Your task to perform on an android device: Go to battery settings Image 0: 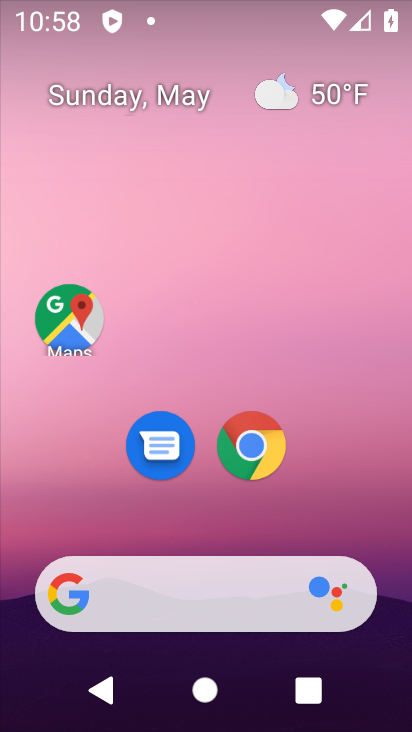
Step 0: drag from (223, 520) to (190, 74)
Your task to perform on an android device: Go to battery settings Image 1: 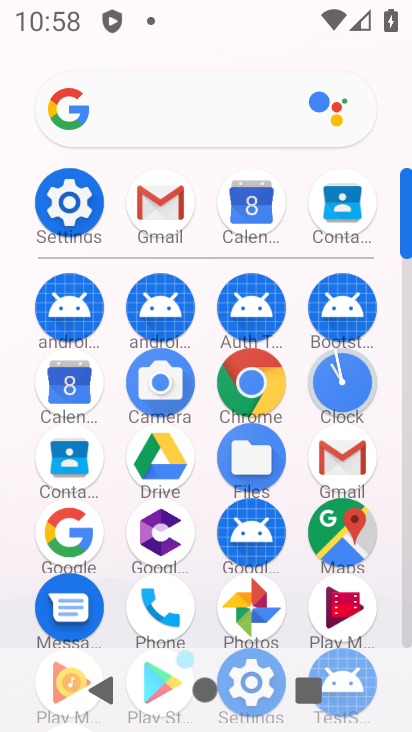
Step 1: click (67, 192)
Your task to perform on an android device: Go to battery settings Image 2: 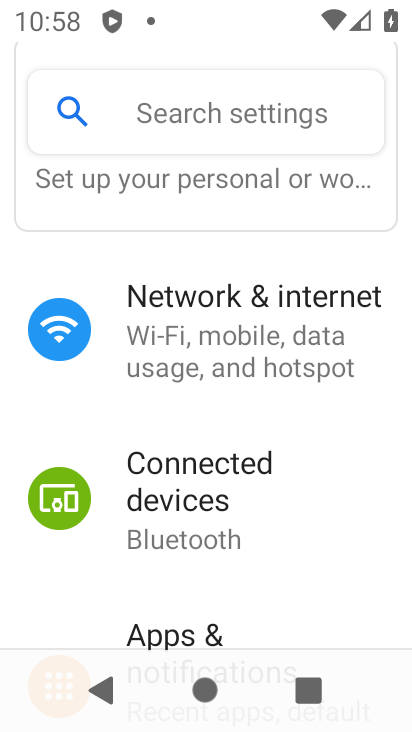
Step 2: drag from (203, 553) to (205, 251)
Your task to perform on an android device: Go to battery settings Image 3: 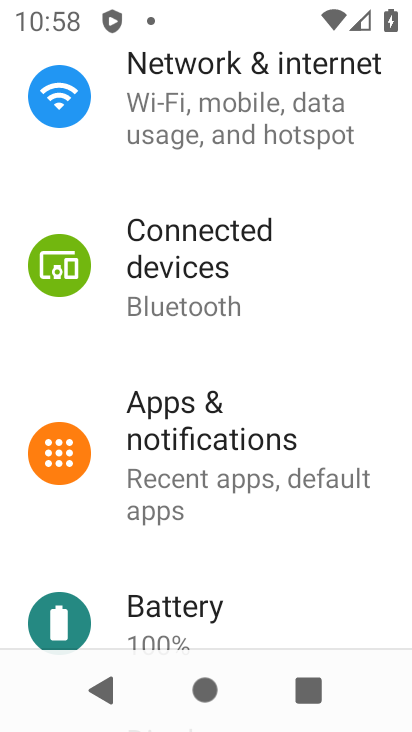
Step 3: drag from (176, 583) to (181, 433)
Your task to perform on an android device: Go to battery settings Image 4: 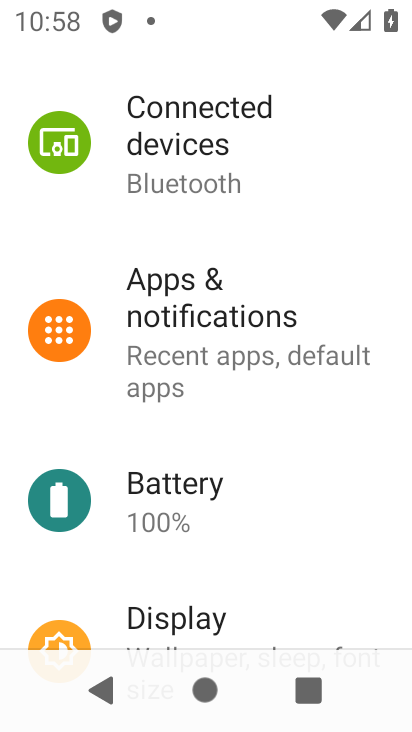
Step 4: click (170, 523)
Your task to perform on an android device: Go to battery settings Image 5: 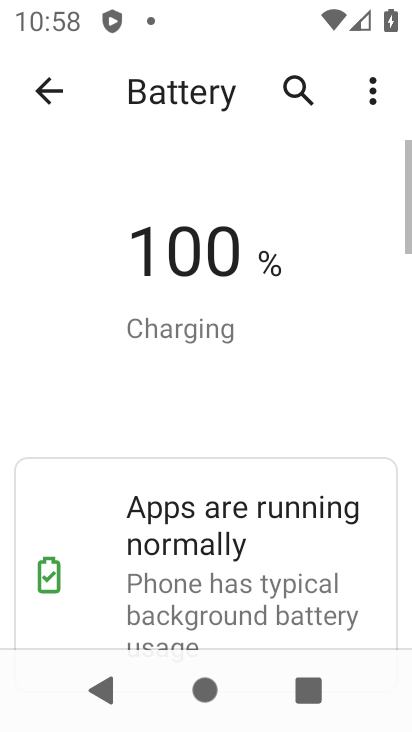
Step 5: task complete